Your task to perform on an android device: turn off translation in the chrome app Image 0: 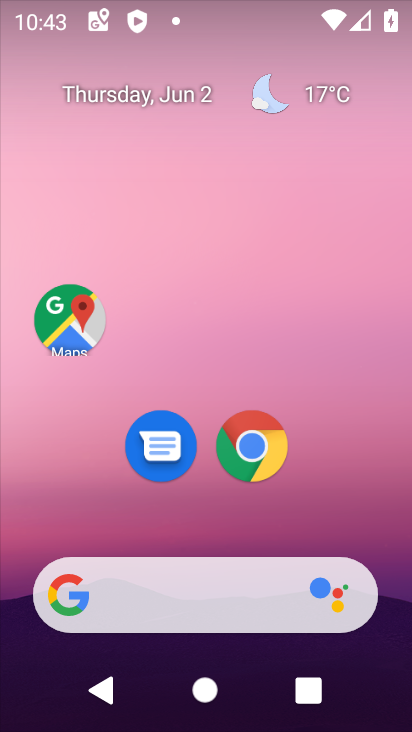
Step 0: click (253, 447)
Your task to perform on an android device: turn off translation in the chrome app Image 1: 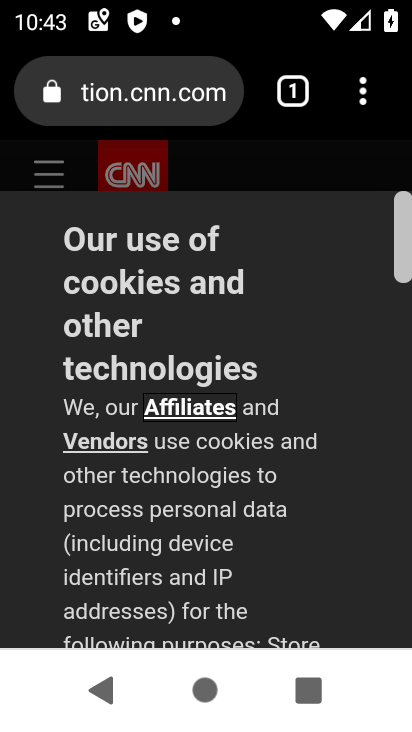
Step 1: drag from (376, 94) to (197, 466)
Your task to perform on an android device: turn off translation in the chrome app Image 2: 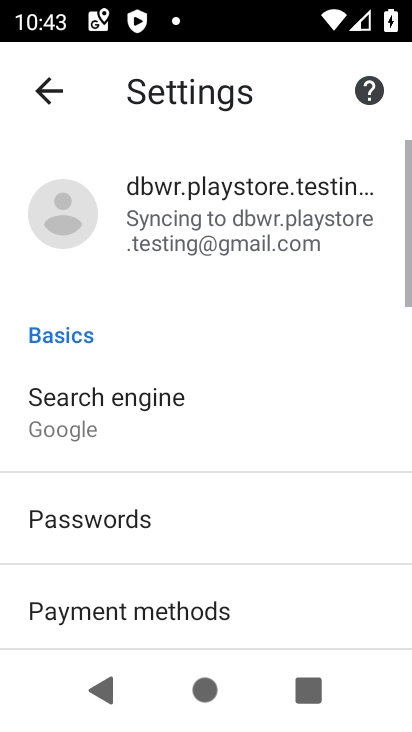
Step 2: drag from (141, 544) to (204, 123)
Your task to perform on an android device: turn off translation in the chrome app Image 3: 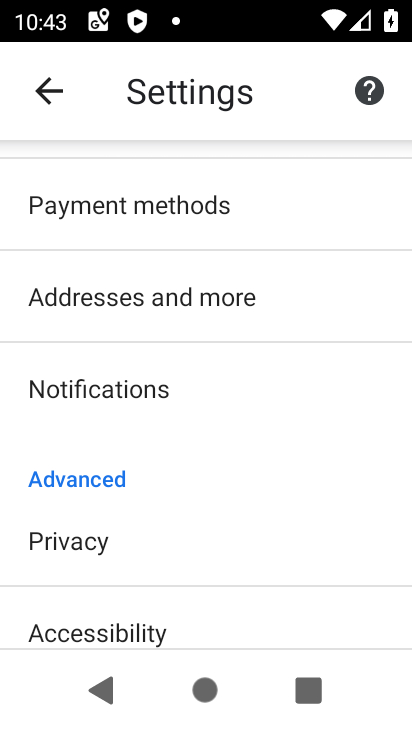
Step 3: drag from (155, 507) to (253, 158)
Your task to perform on an android device: turn off translation in the chrome app Image 4: 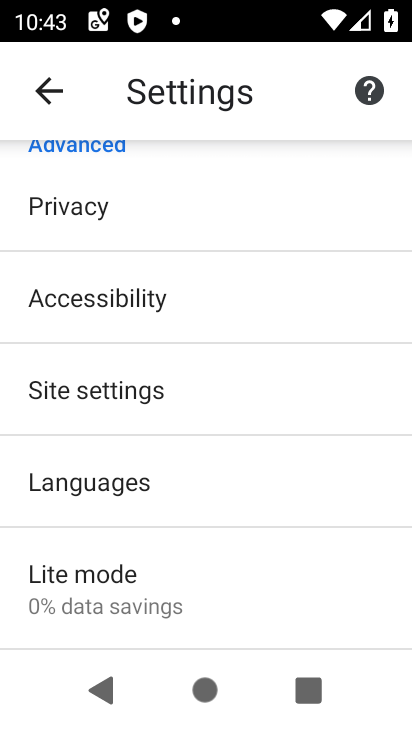
Step 4: drag from (173, 622) to (235, 380)
Your task to perform on an android device: turn off translation in the chrome app Image 5: 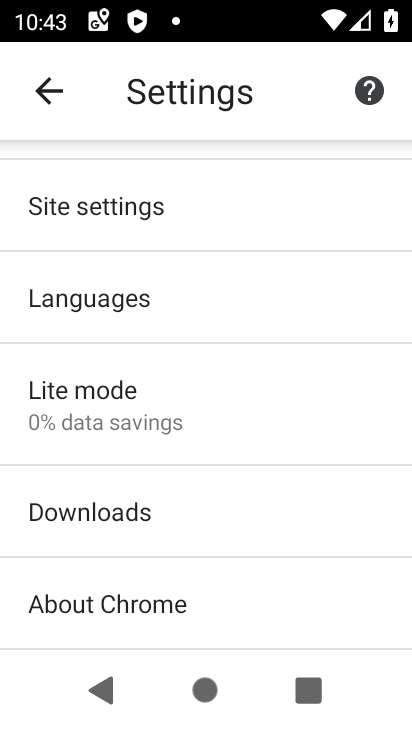
Step 5: click (128, 288)
Your task to perform on an android device: turn off translation in the chrome app Image 6: 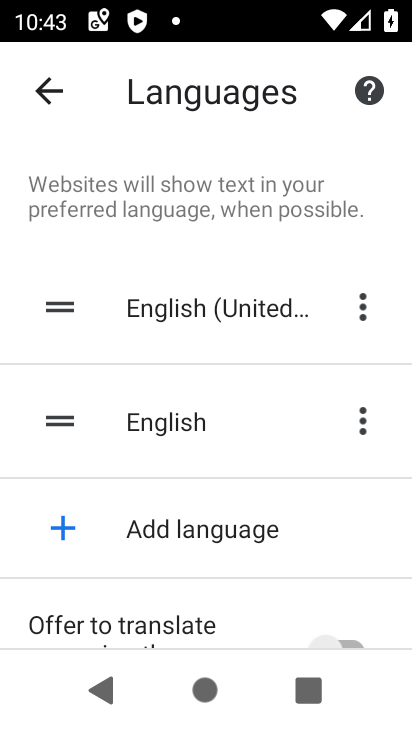
Step 6: task complete